Your task to perform on an android device: Open ESPN.com Image 0: 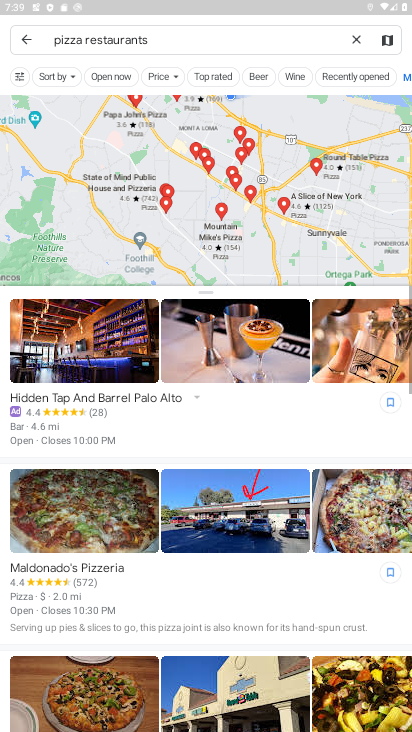
Step 0: press home button
Your task to perform on an android device: Open ESPN.com Image 1: 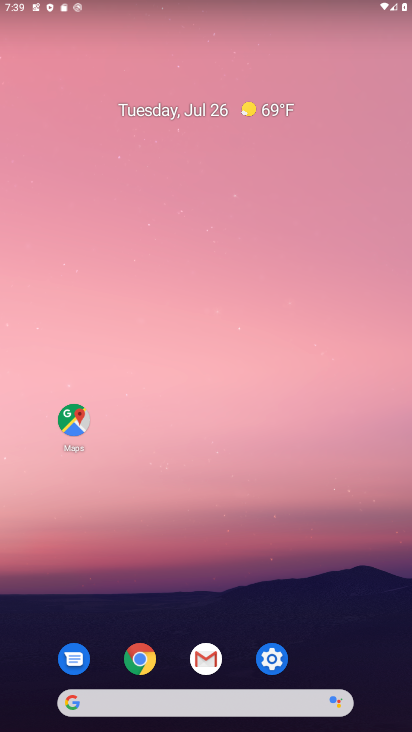
Step 1: click (142, 658)
Your task to perform on an android device: Open ESPN.com Image 2: 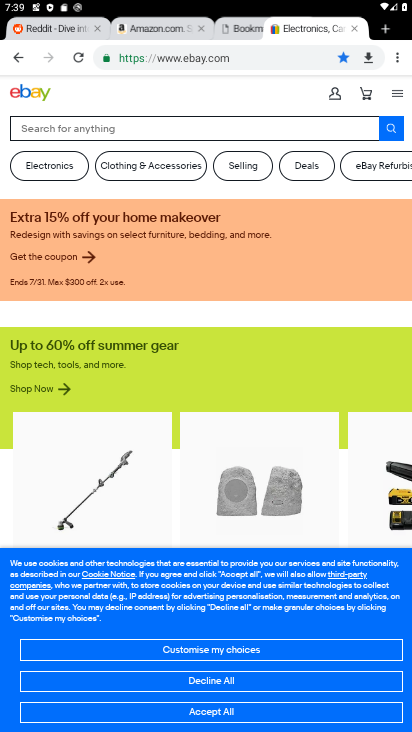
Step 2: click (266, 60)
Your task to perform on an android device: Open ESPN.com Image 3: 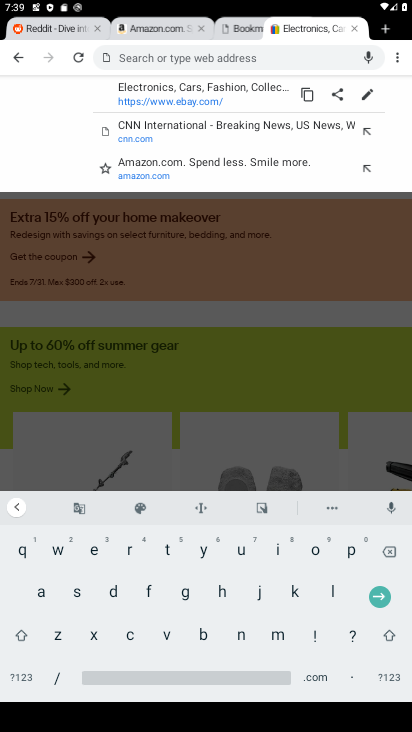
Step 3: click (92, 549)
Your task to perform on an android device: Open ESPN.com Image 4: 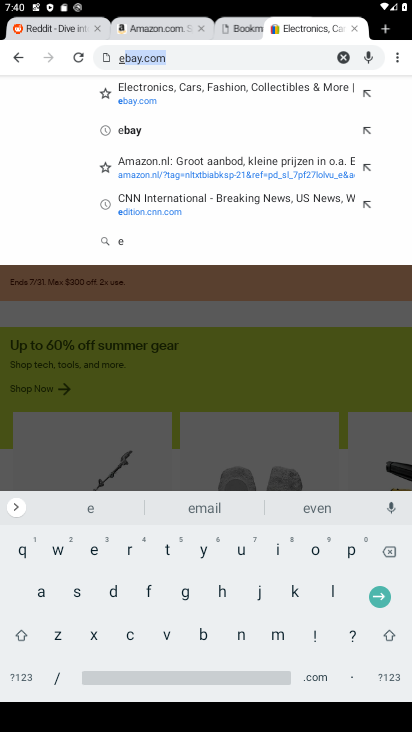
Step 4: click (74, 586)
Your task to perform on an android device: Open ESPN.com Image 5: 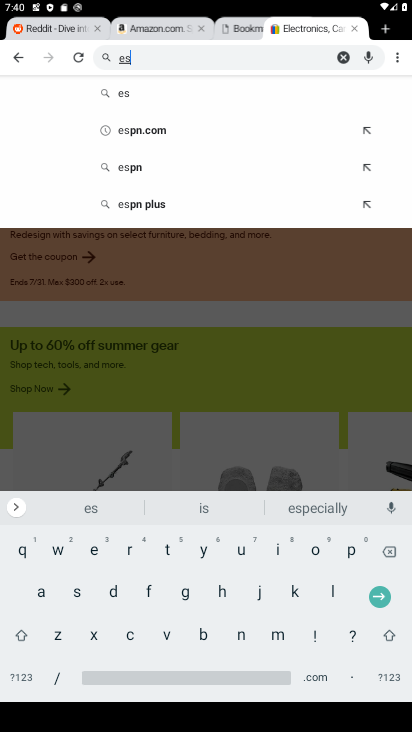
Step 5: click (156, 129)
Your task to perform on an android device: Open ESPN.com Image 6: 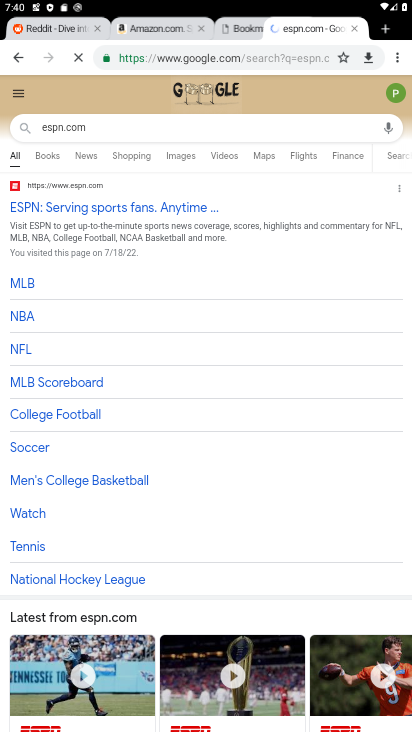
Step 6: click (90, 215)
Your task to perform on an android device: Open ESPN.com Image 7: 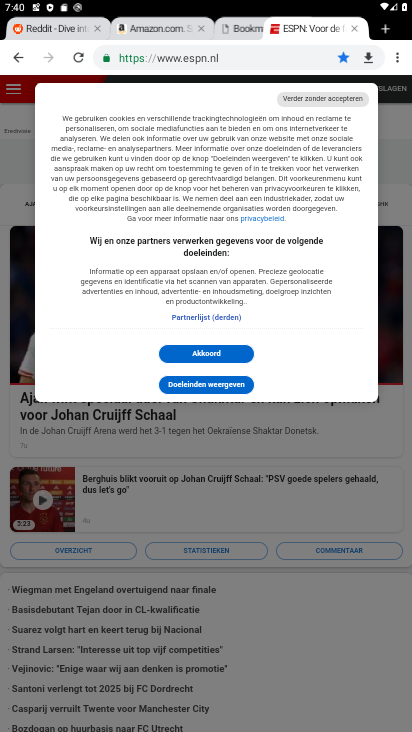
Step 7: click (193, 351)
Your task to perform on an android device: Open ESPN.com Image 8: 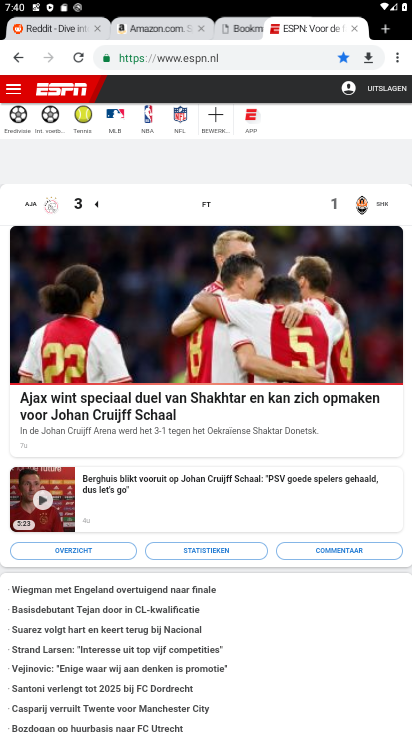
Step 8: task complete